Your task to perform on an android device: toggle notifications settings in the gmail app Image 0: 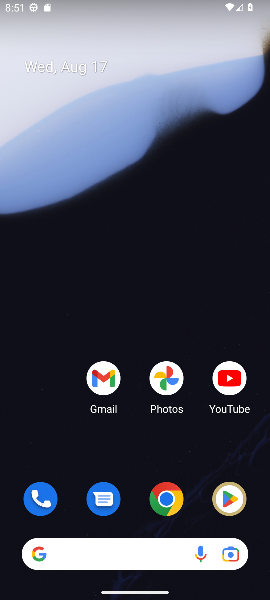
Step 0: click (100, 386)
Your task to perform on an android device: toggle notifications settings in the gmail app Image 1: 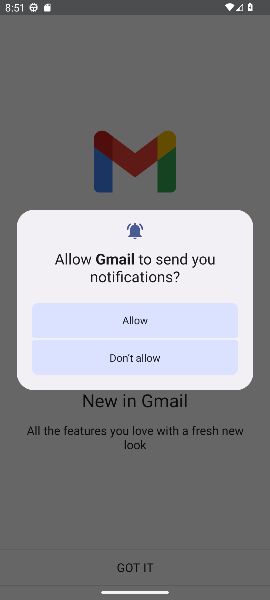
Step 1: click (149, 322)
Your task to perform on an android device: toggle notifications settings in the gmail app Image 2: 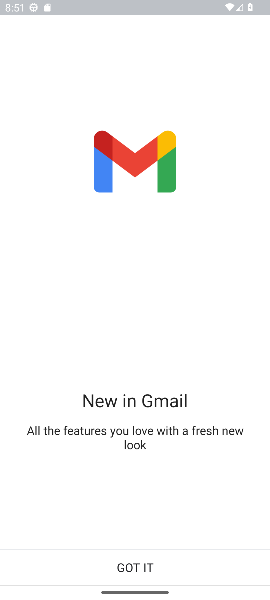
Step 2: click (142, 563)
Your task to perform on an android device: toggle notifications settings in the gmail app Image 3: 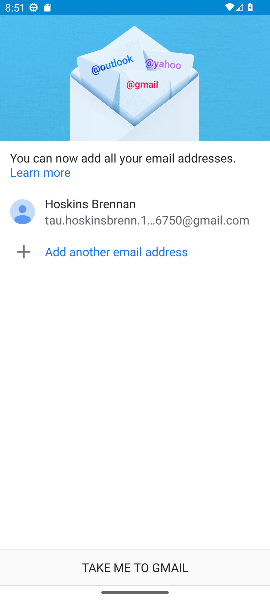
Step 3: click (145, 556)
Your task to perform on an android device: toggle notifications settings in the gmail app Image 4: 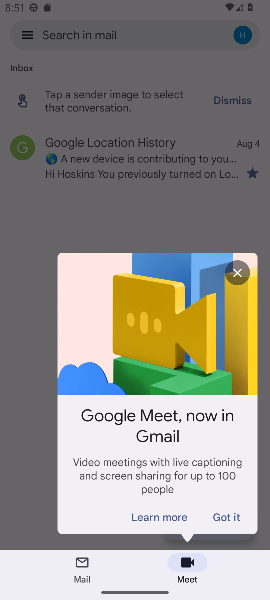
Step 4: click (16, 39)
Your task to perform on an android device: toggle notifications settings in the gmail app Image 5: 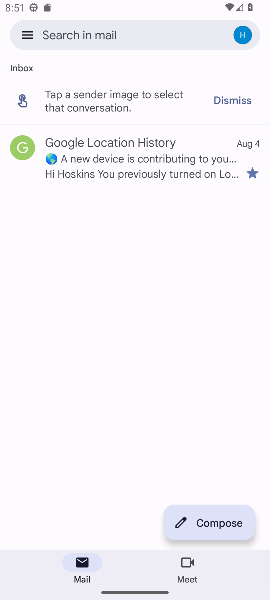
Step 5: click (29, 41)
Your task to perform on an android device: toggle notifications settings in the gmail app Image 6: 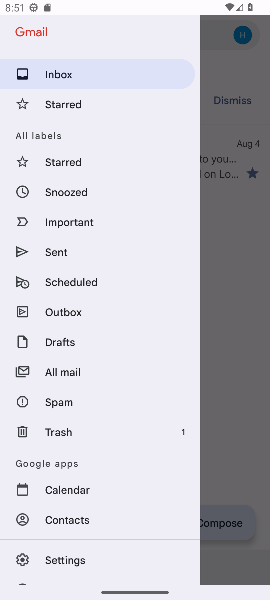
Step 6: click (86, 554)
Your task to perform on an android device: toggle notifications settings in the gmail app Image 7: 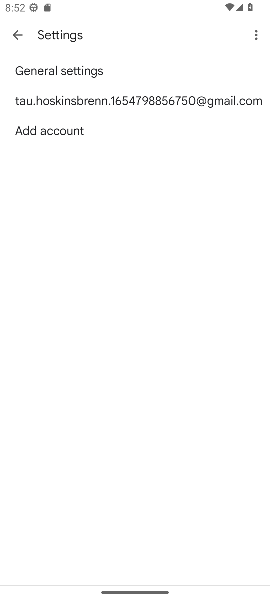
Step 7: click (149, 101)
Your task to perform on an android device: toggle notifications settings in the gmail app Image 8: 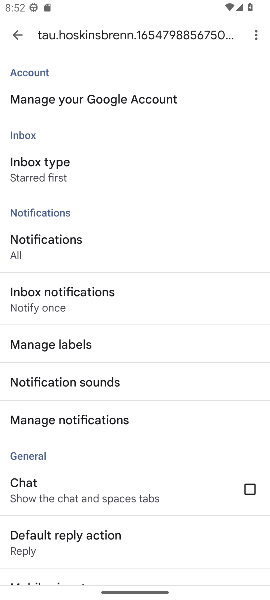
Step 8: click (105, 424)
Your task to perform on an android device: toggle notifications settings in the gmail app Image 9: 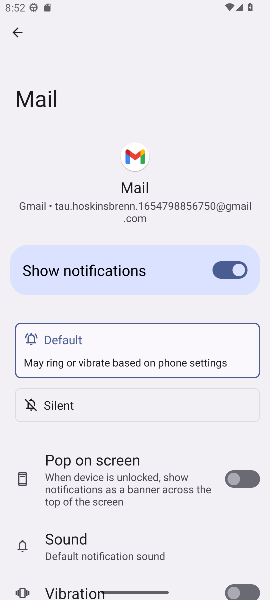
Step 9: click (236, 265)
Your task to perform on an android device: toggle notifications settings in the gmail app Image 10: 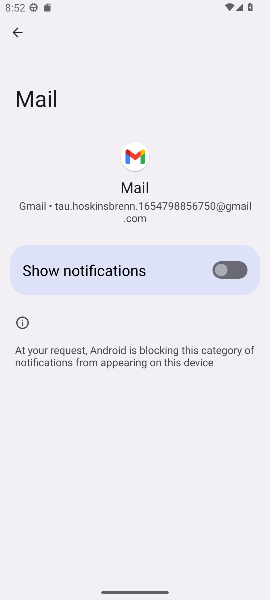
Step 10: task complete